Your task to perform on an android device: What's on my calendar tomorrow? Image 0: 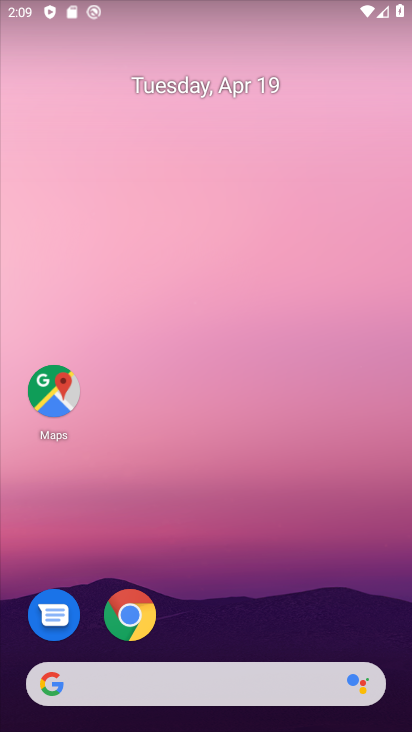
Step 0: drag from (226, 452) to (292, 81)
Your task to perform on an android device: What's on my calendar tomorrow? Image 1: 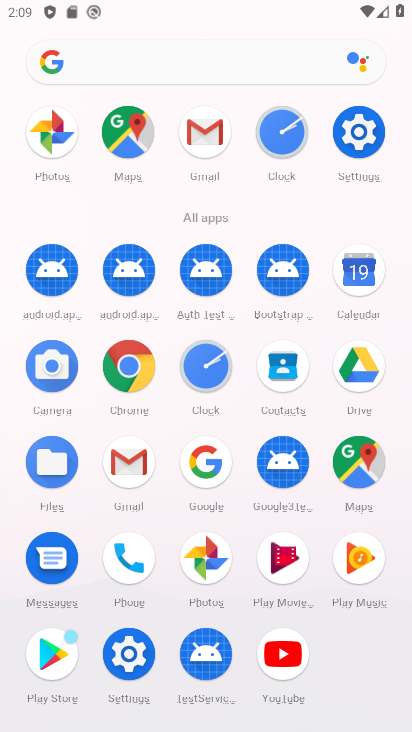
Step 1: click (355, 287)
Your task to perform on an android device: What's on my calendar tomorrow? Image 2: 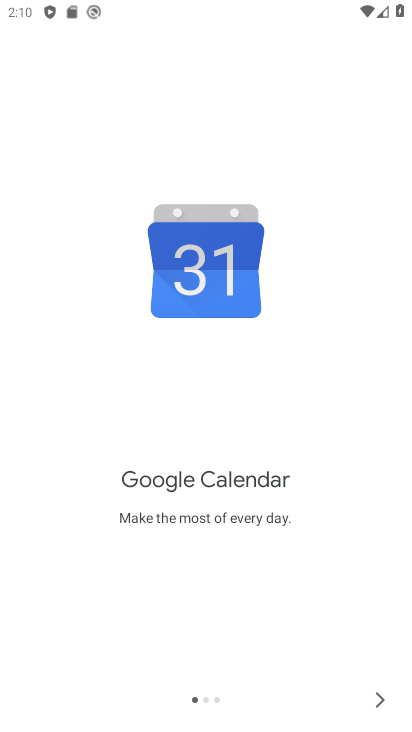
Step 2: click (381, 704)
Your task to perform on an android device: What's on my calendar tomorrow? Image 3: 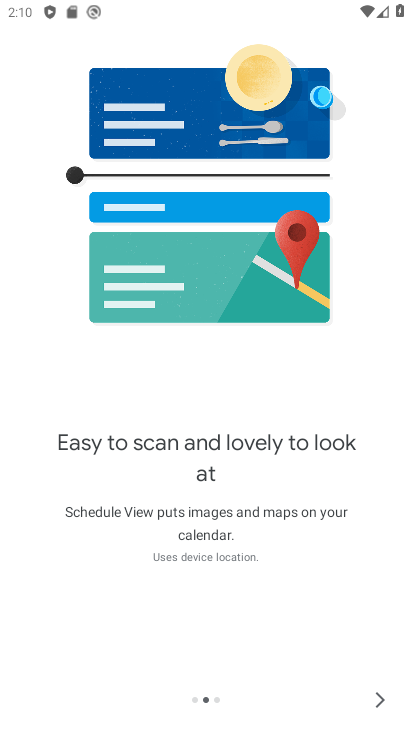
Step 3: click (381, 704)
Your task to perform on an android device: What's on my calendar tomorrow? Image 4: 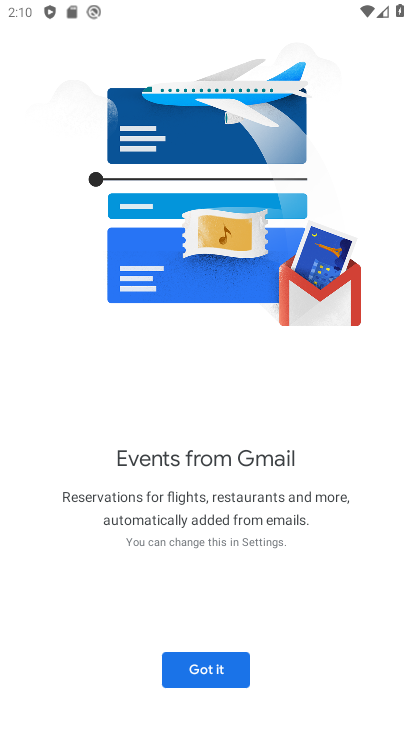
Step 4: click (200, 671)
Your task to perform on an android device: What's on my calendar tomorrow? Image 5: 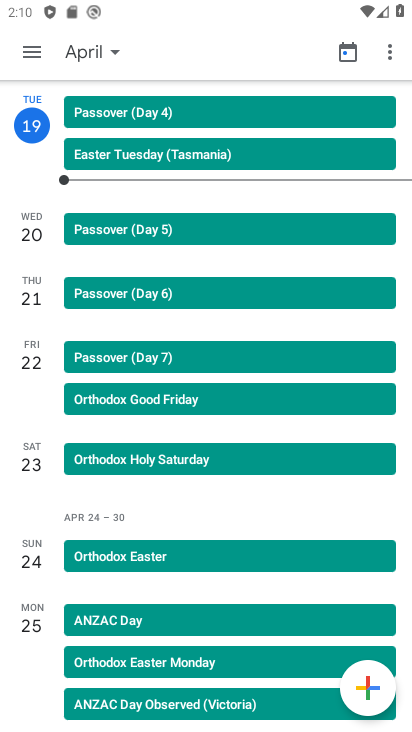
Step 5: click (34, 239)
Your task to perform on an android device: What's on my calendar tomorrow? Image 6: 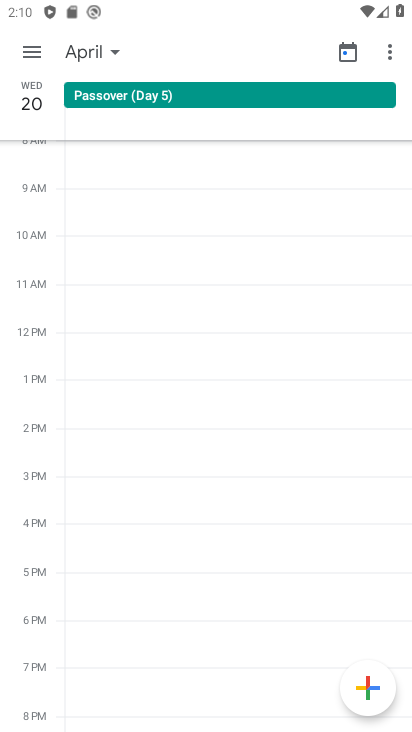
Step 6: task complete